Your task to perform on an android device: Go to Reddit.com Image 0: 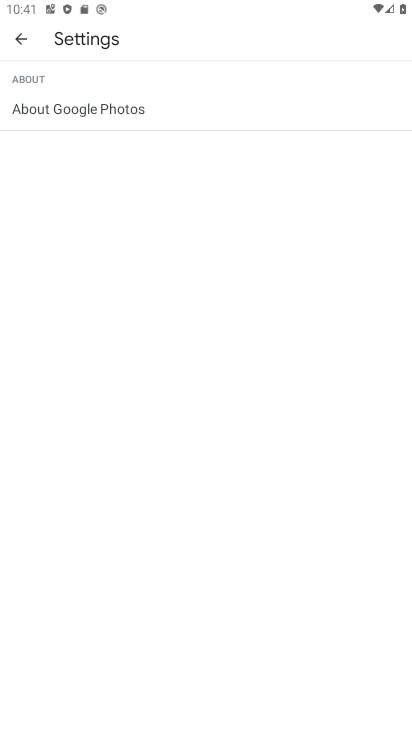
Step 0: press home button
Your task to perform on an android device: Go to Reddit.com Image 1: 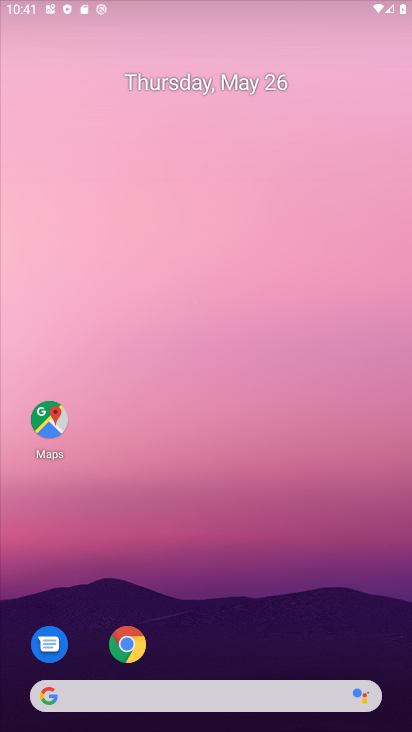
Step 1: drag from (361, 640) to (302, 49)
Your task to perform on an android device: Go to Reddit.com Image 2: 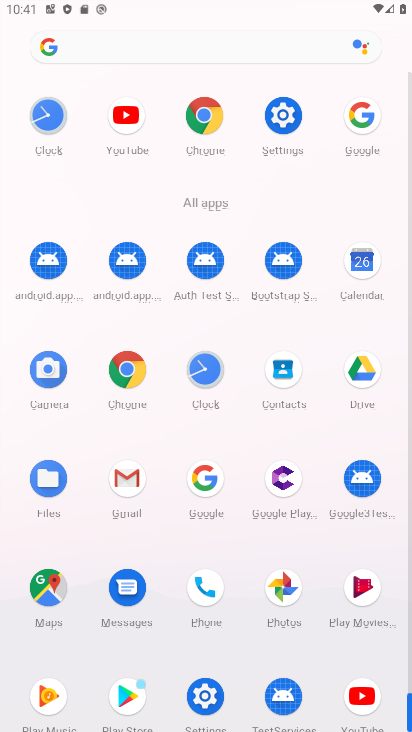
Step 2: click (216, 484)
Your task to perform on an android device: Go to Reddit.com Image 3: 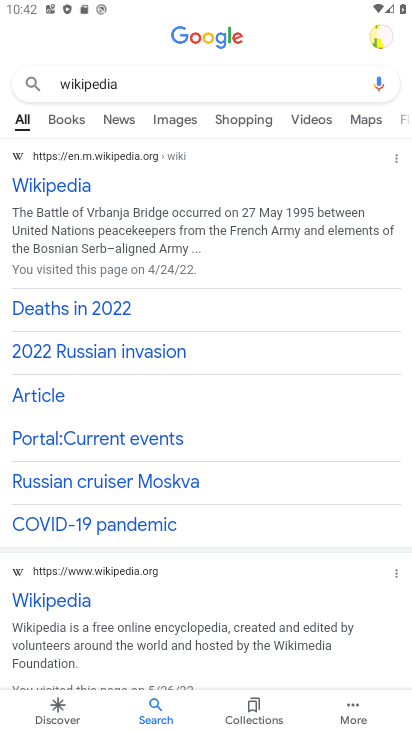
Step 3: press back button
Your task to perform on an android device: Go to Reddit.com Image 4: 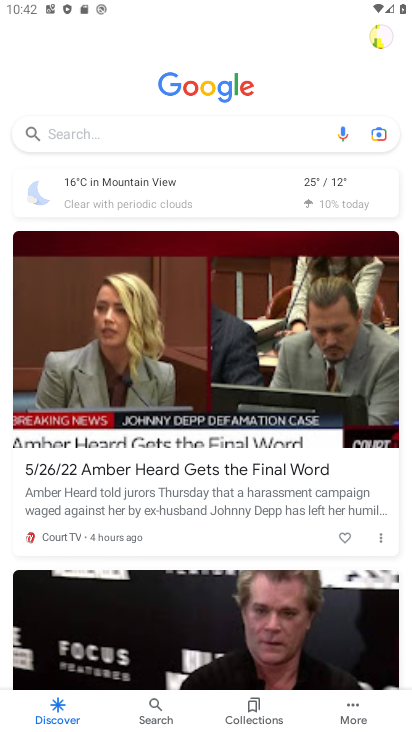
Step 4: click (176, 127)
Your task to perform on an android device: Go to Reddit.com Image 5: 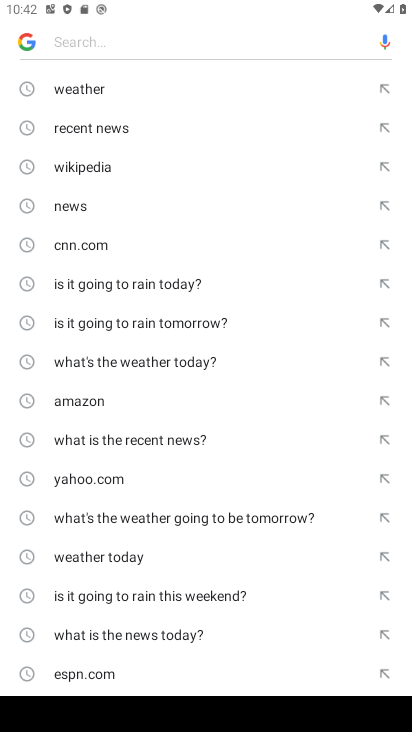
Step 5: drag from (157, 627) to (153, 302)
Your task to perform on an android device: Go to Reddit.com Image 6: 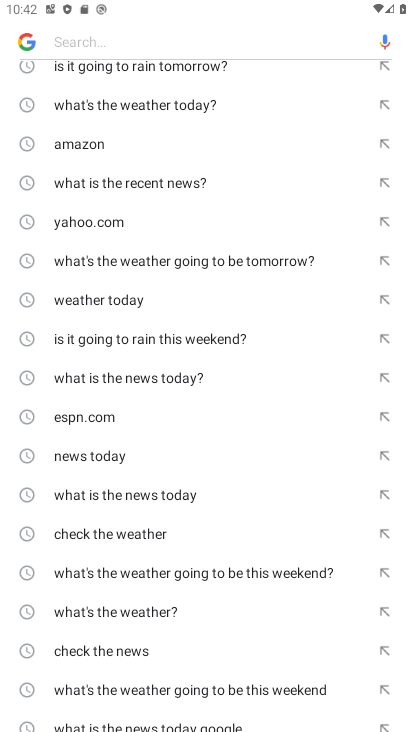
Step 6: drag from (158, 600) to (131, 315)
Your task to perform on an android device: Go to Reddit.com Image 7: 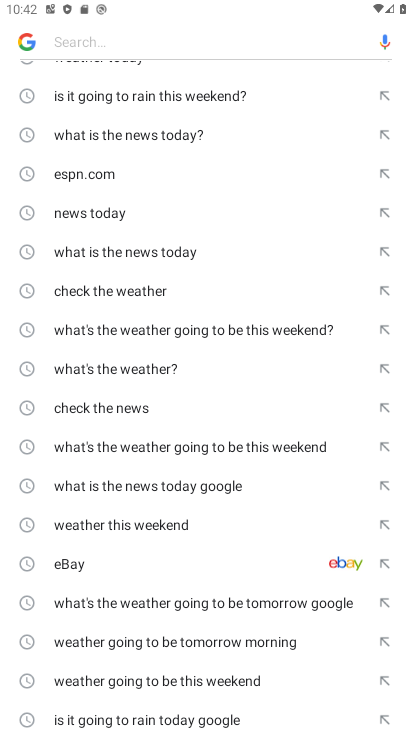
Step 7: drag from (177, 640) to (139, 175)
Your task to perform on an android device: Go to Reddit.com Image 8: 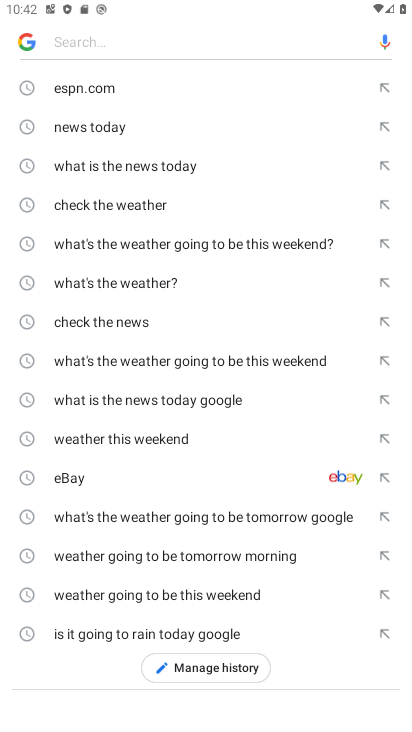
Step 8: drag from (175, 117) to (210, 720)
Your task to perform on an android device: Go to Reddit.com Image 9: 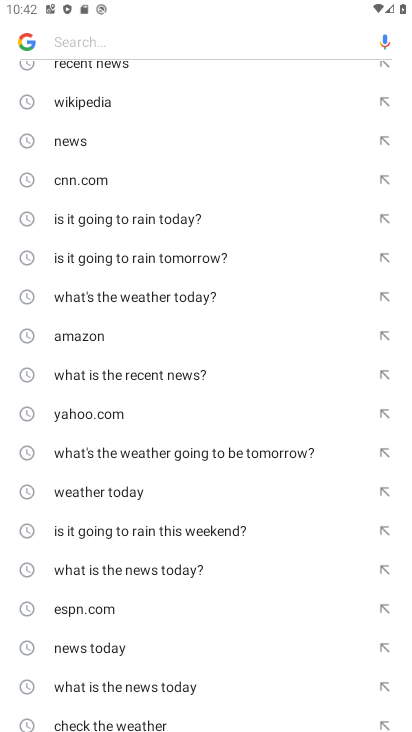
Step 9: click (114, 41)
Your task to perform on an android device: Go to Reddit.com Image 10: 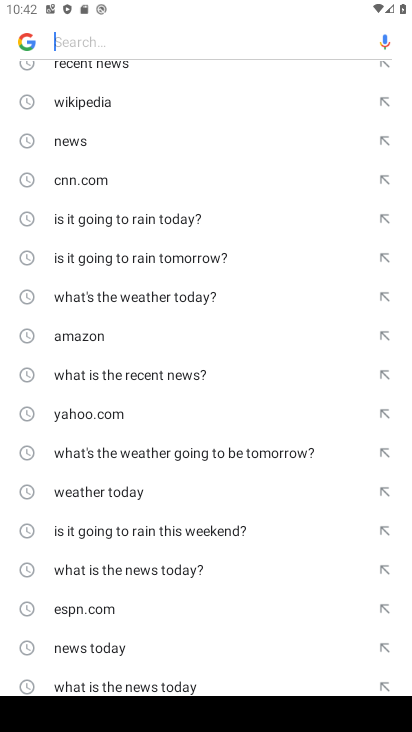
Step 10: type "reddit.com"
Your task to perform on an android device: Go to Reddit.com Image 11: 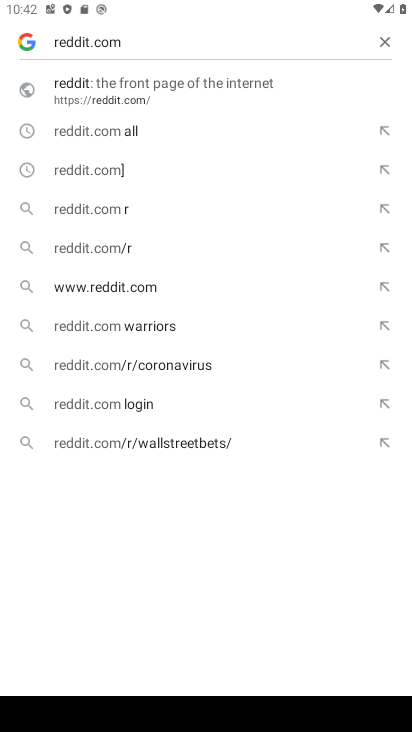
Step 11: click (144, 108)
Your task to perform on an android device: Go to Reddit.com Image 12: 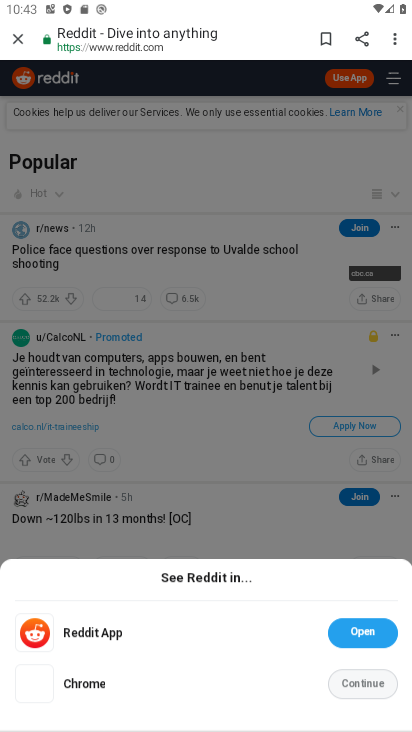
Step 12: task complete